Your task to perform on an android device: What's a good restaurant in Philadelphia? Image 0: 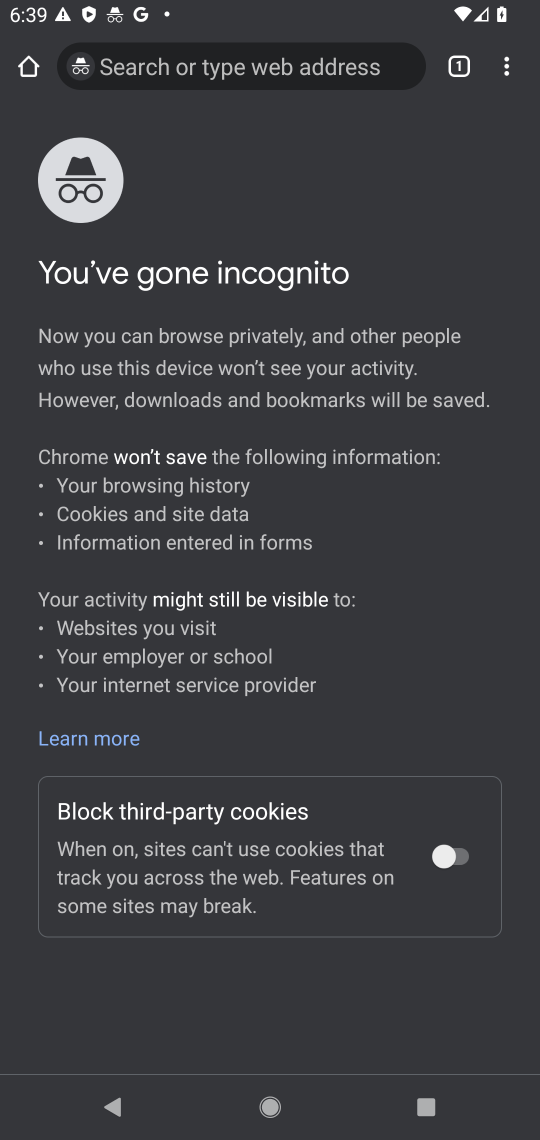
Step 0: click (511, 74)
Your task to perform on an android device: What's a good restaurant in Philadelphia? Image 1: 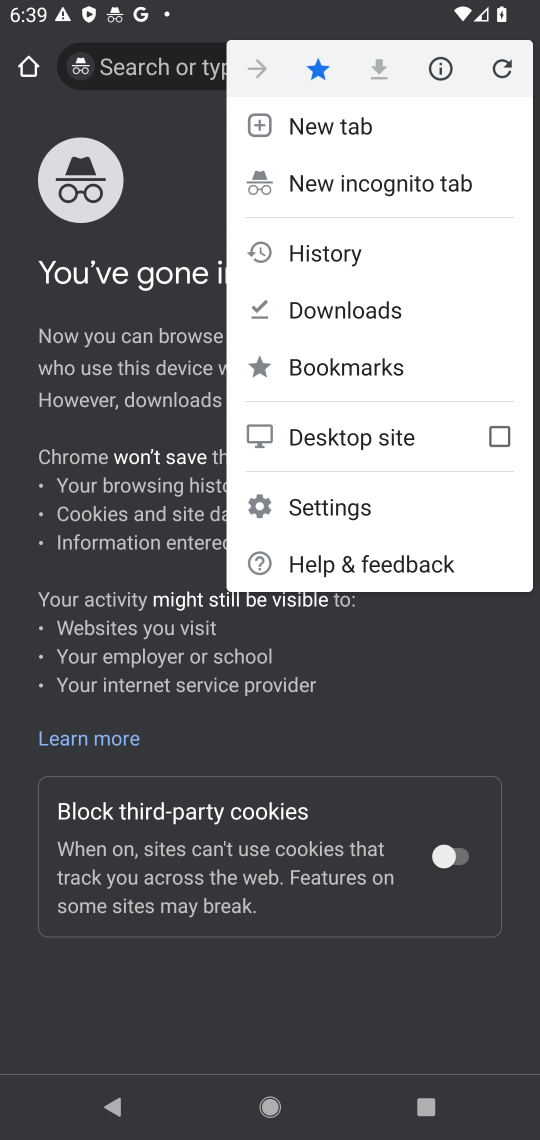
Step 1: click (350, 115)
Your task to perform on an android device: What's a good restaurant in Philadelphia? Image 2: 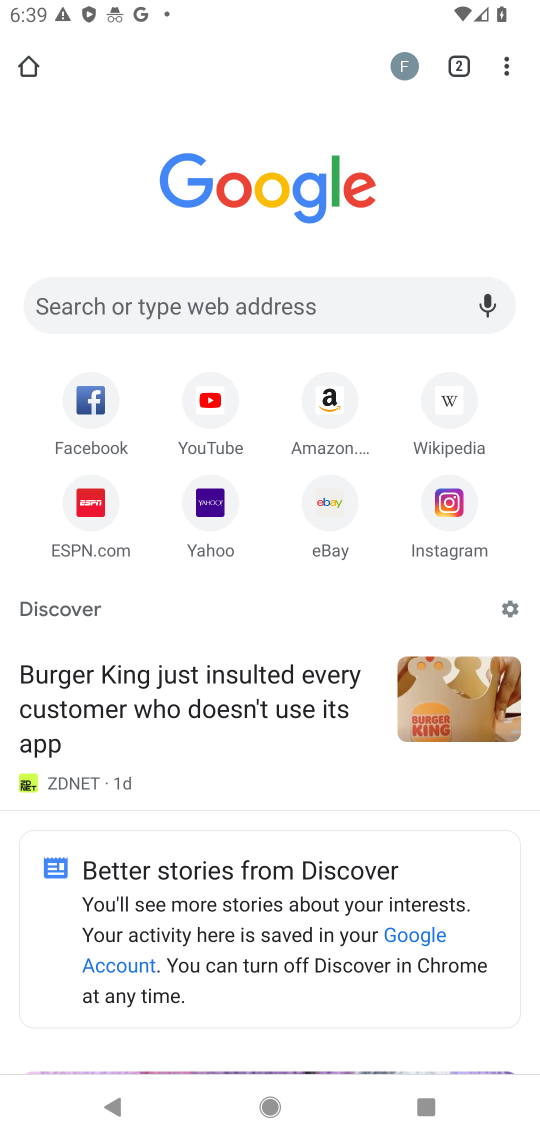
Step 2: click (257, 301)
Your task to perform on an android device: What's a good restaurant in Philadelphia? Image 3: 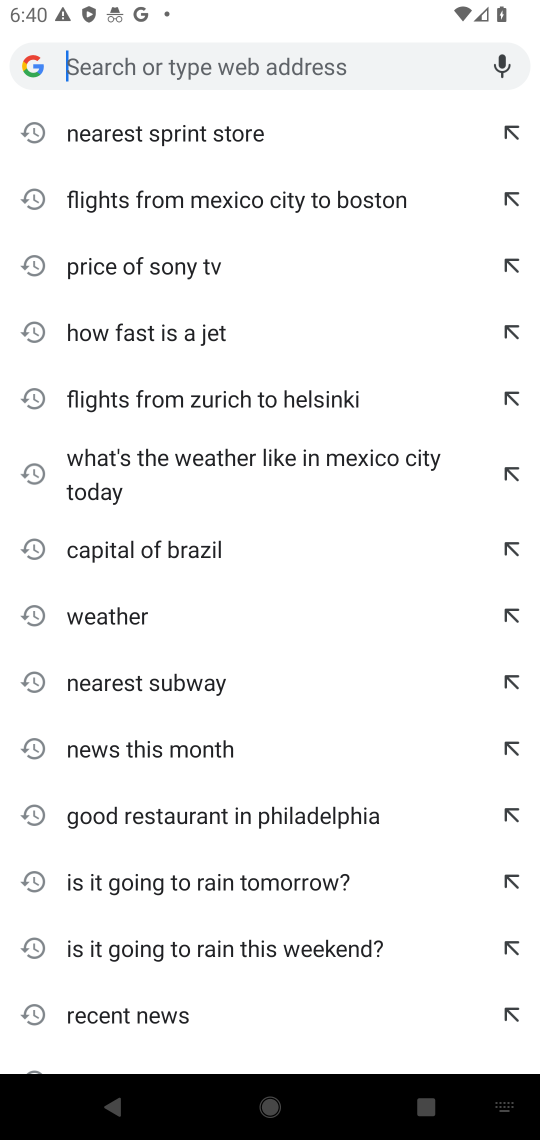
Step 3: type "What's a good restaurant in Philadelphia?"
Your task to perform on an android device: What's a good restaurant in Philadelphia? Image 4: 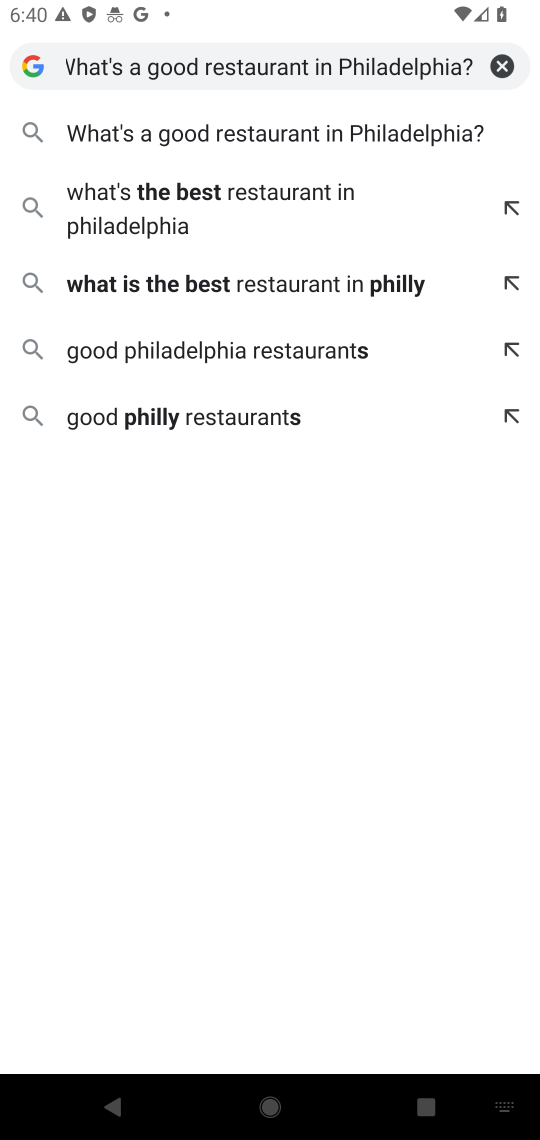
Step 4: click (247, 127)
Your task to perform on an android device: What's a good restaurant in Philadelphia? Image 5: 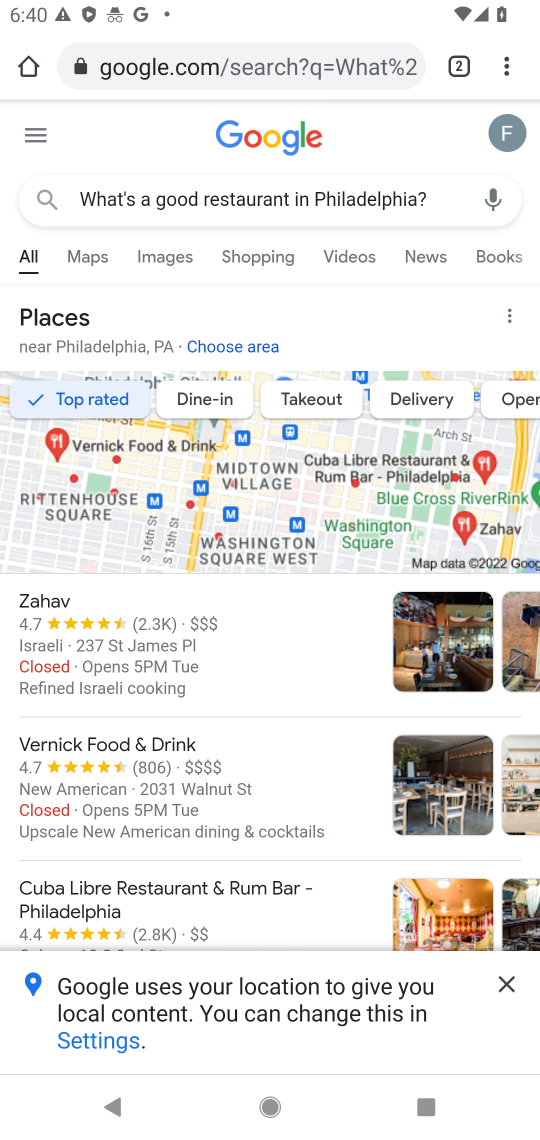
Step 5: task complete